Your task to perform on an android device: check out phone information Image 0: 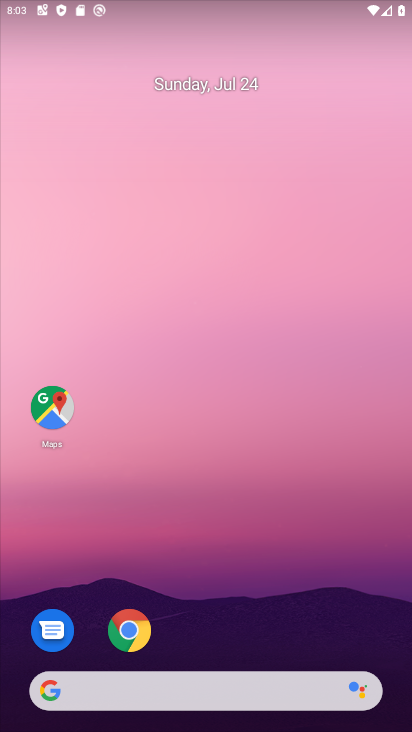
Step 0: drag from (201, 628) to (186, 159)
Your task to perform on an android device: check out phone information Image 1: 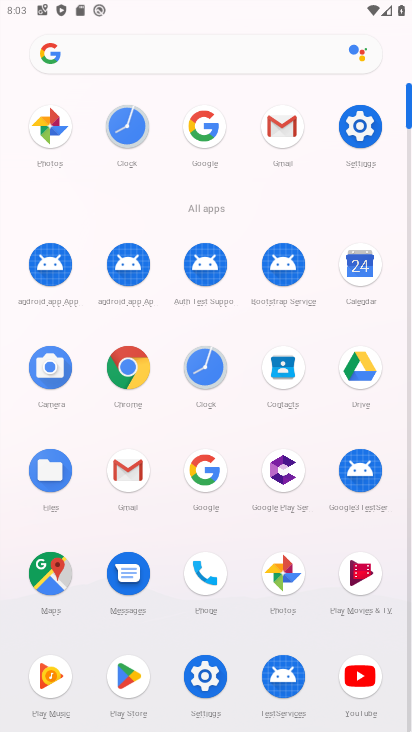
Step 1: click (344, 109)
Your task to perform on an android device: check out phone information Image 2: 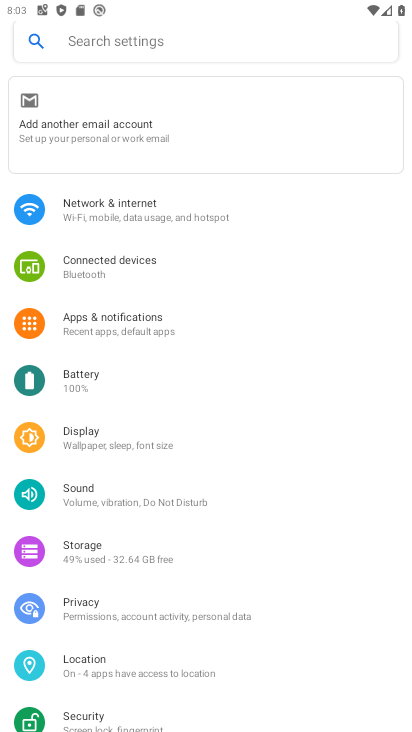
Step 2: drag from (141, 648) to (101, 89)
Your task to perform on an android device: check out phone information Image 3: 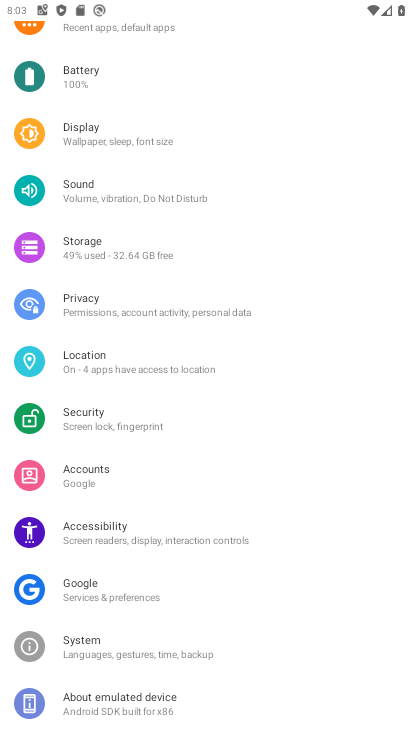
Step 3: click (125, 683)
Your task to perform on an android device: check out phone information Image 4: 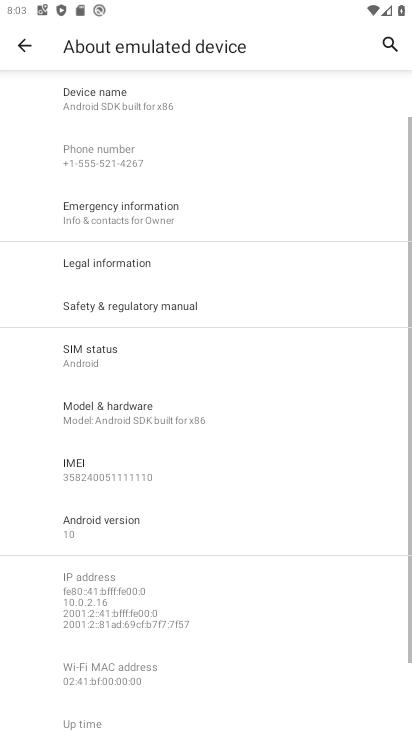
Step 4: task complete